Your task to perform on an android device: toggle priority inbox in the gmail app Image 0: 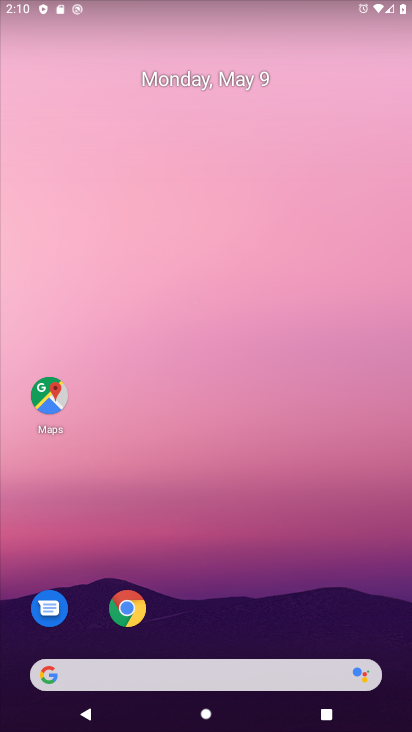
Step 0: drag from (241, 637) to (225, 282)
Your task to perform on an android device: toggle priority inbox in the gmail app Image 1: 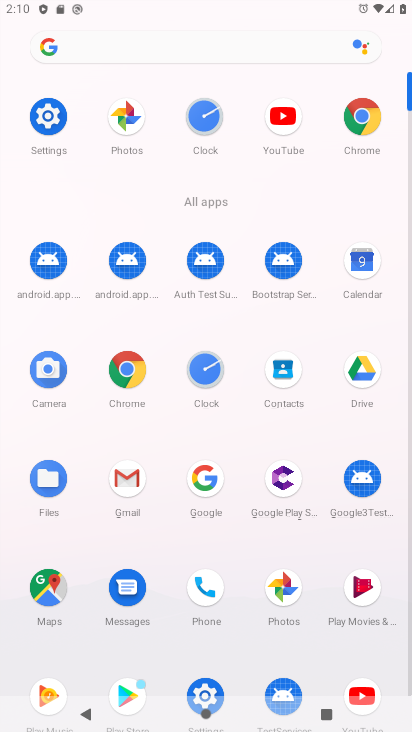
Step 1: click (127, 476)
Your task to perform on an android device: toggle priority inbox in the gmail app Image 2: 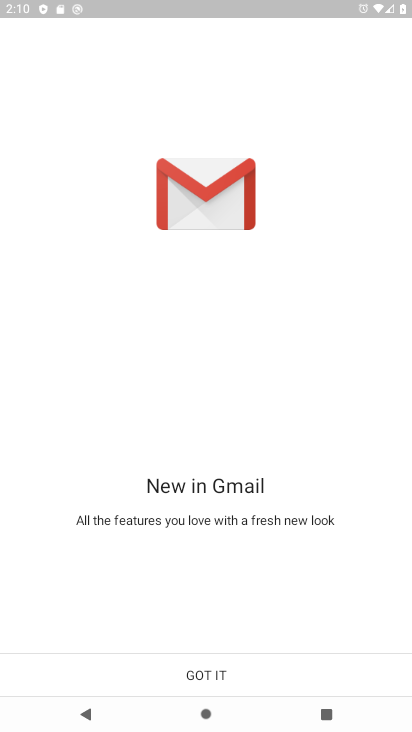
Step 2: click (244, 671)
Your task to perform on an android device: toggle priority inbox in the gmail app Image 3: 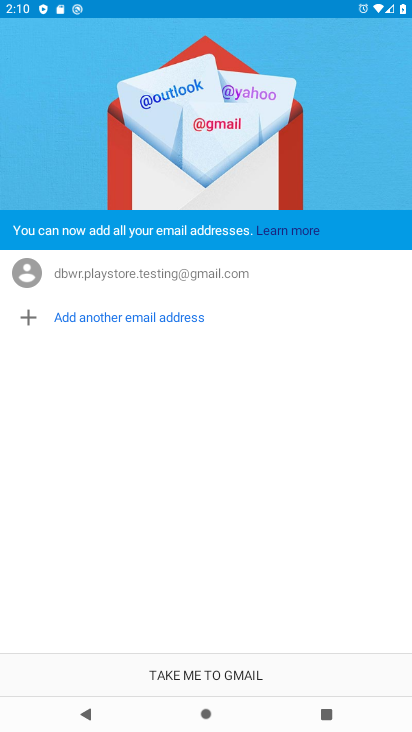
Step 3: click (244, 671)
Your task to perform on an android device: toggle priority inbox in the gmail app Image 4: 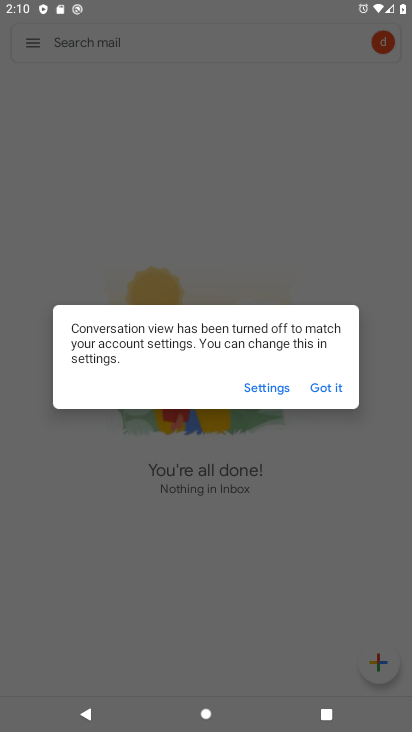
Step 4: click (322, 390)
Your task to perform on an android device: toggle priority inbox in the gmail app Image 5: 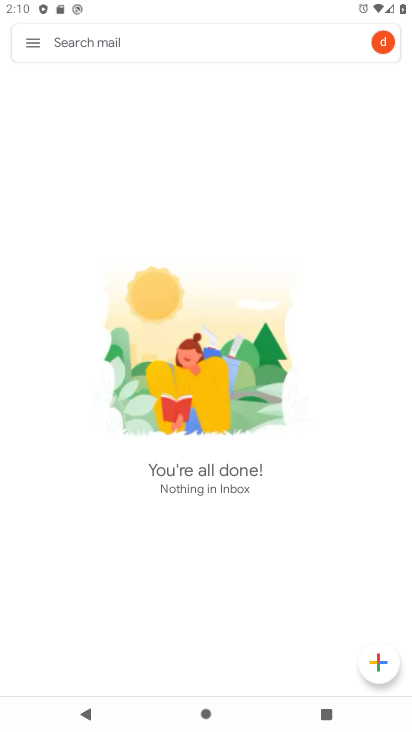
Step 5: click (25, 47)
Your task to perform on an android device: toggle priority inbox in the gmail app Image 6: 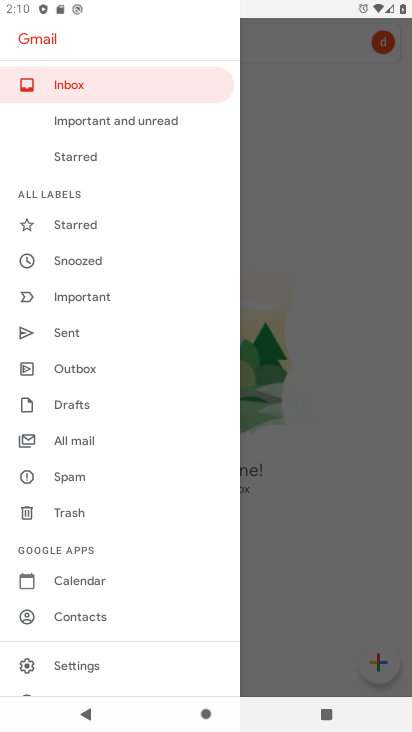
Step 6: click (109, 661)
Your task to perform on an android device: toggle priority inbox in the gmail app Image 7: 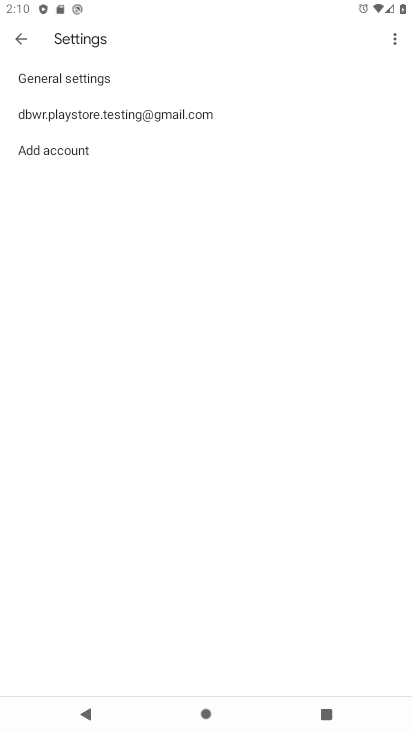
Step 7: click (184, 108)
Your task to perform on an android device: toggle priority inbox in the gmail app Image 8: 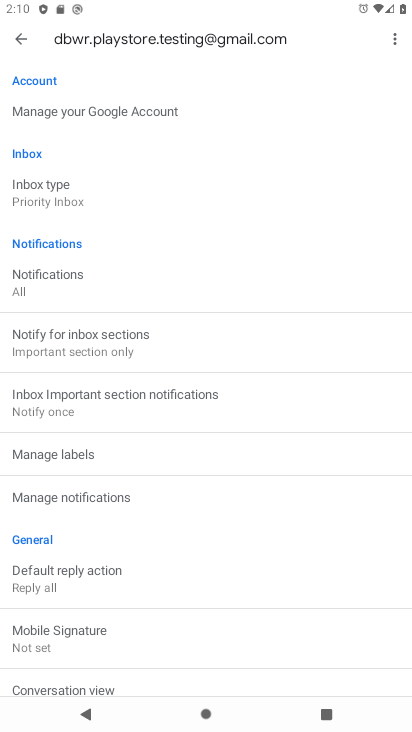
Step 8: click (96, 202)
Your task to perform on an android device: toggle priority inbox in the gmail app Image 9: 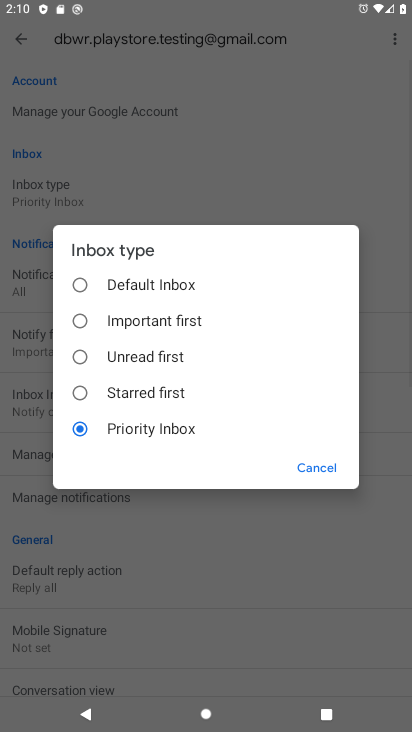
Step 9: click (153, 318)
Your task to perform on an android device: toggle priority inbox in the gmail app Image 10: 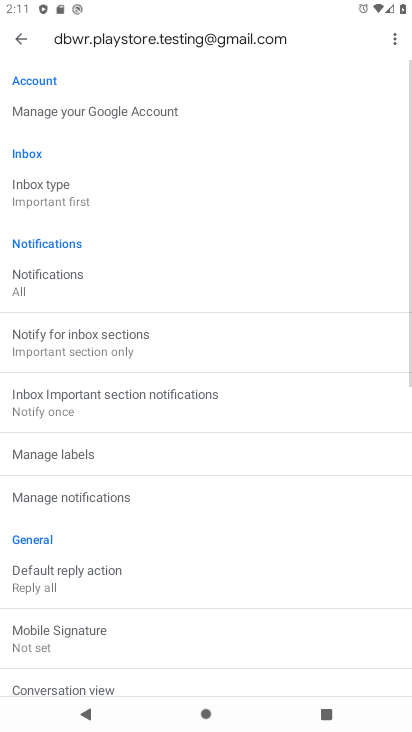
Step 10: task complete